Your task to perform on an android device: change text size in settings app Image 0: 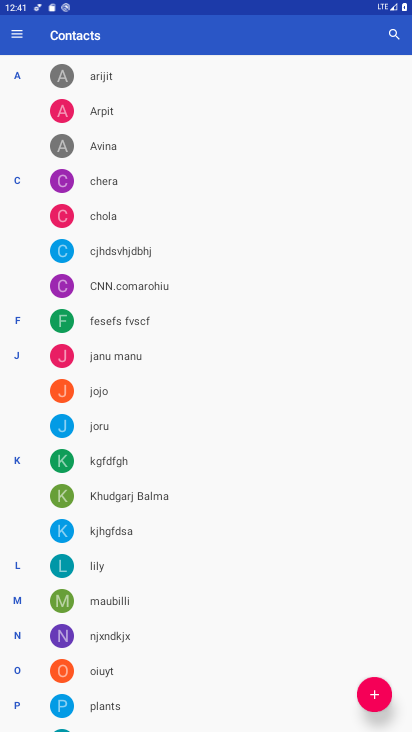
Step 0: press home button
Your task to perform on an android device: change text size in settings app Image 1: 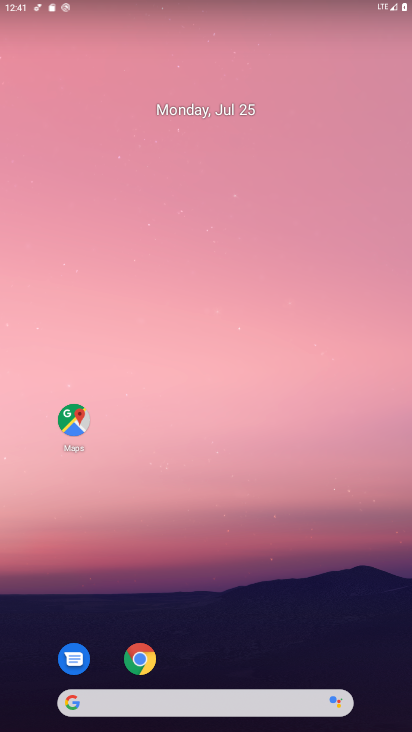
Step 1: drag from (213, 673) to (203, 3)
Your task to perform on an android device: change text size in settings app Image 2: 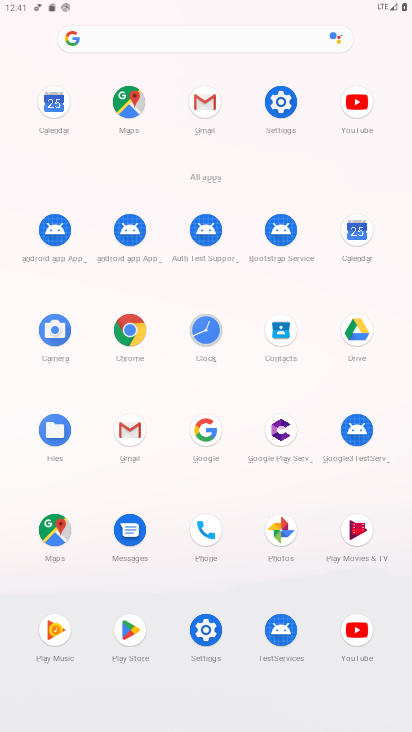
Step 2: click (205, 628)
Your task to perform on an android device: change text size in settings app Image 3: 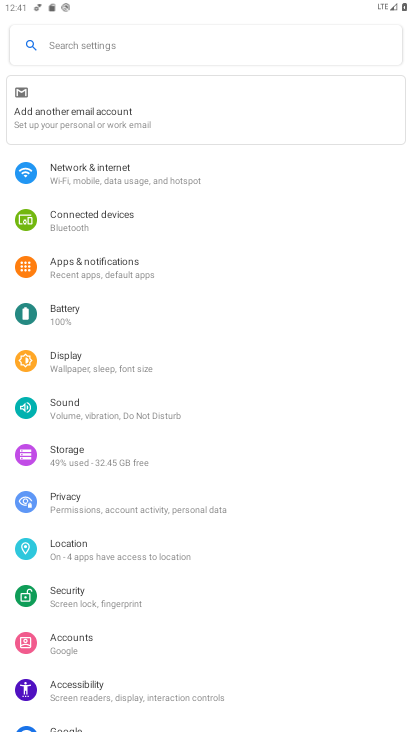
Step 3: click (90, 356)
Your task to perform on an android device: change text size in settings app Image 4: 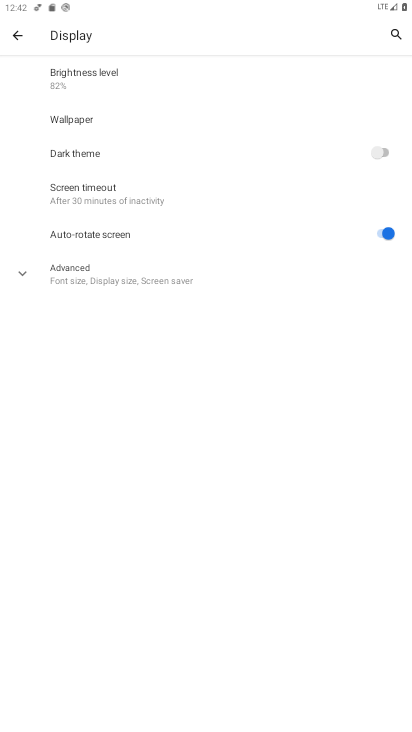
Step 4: click (24, 271)
Your task to perform on an android device: change text size in settings app Image 5: 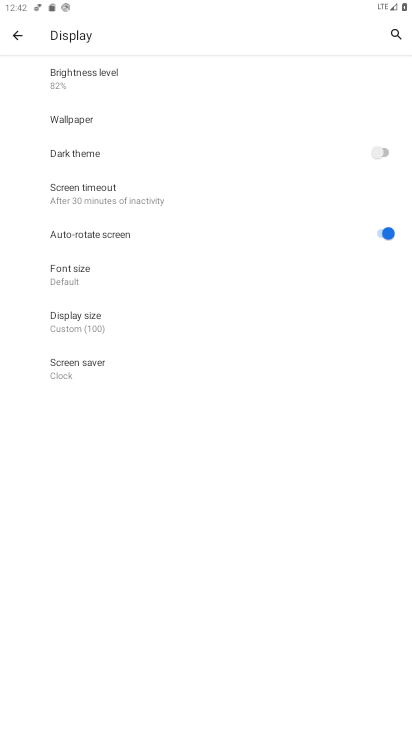
Step 5: click (101, 278)
Your task to perform on an android device: change text size in settings app Image 6: 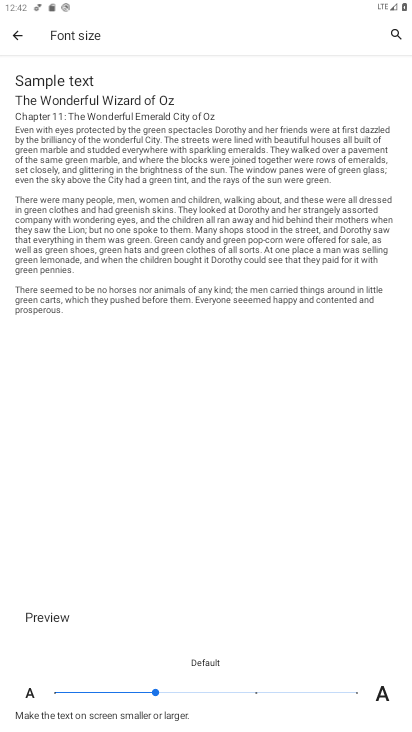
Step 6: click (351, 692)
Your task to perform on an android device: change text size in settings app Image 7: 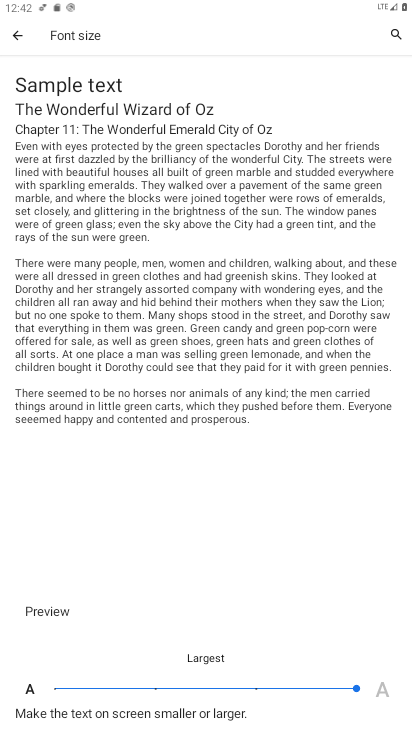
Step 7: task complete